Your task to perform on an android device: refresh tabs in the chrome app Image 0: 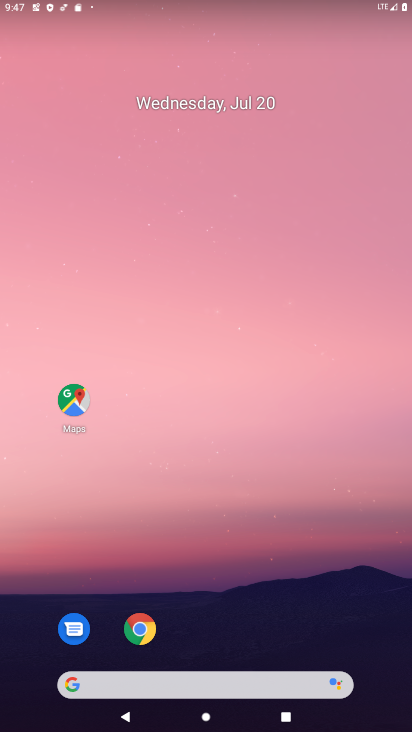
Step 0: press home button
Your task to perform on an android device: refresh tabs in the chrome app Image 1: 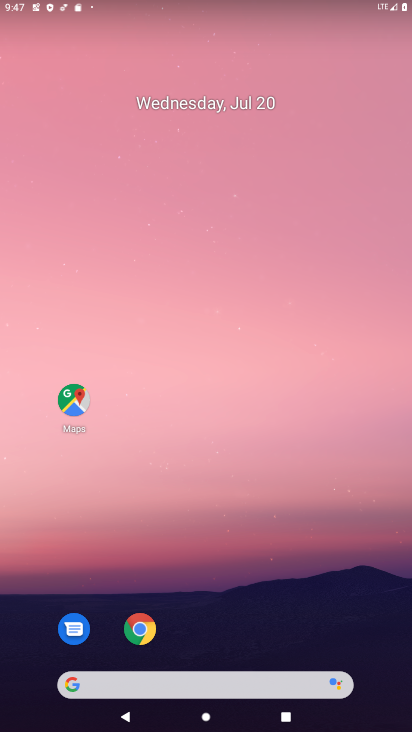
Step 1: drag from (306, 626) to (270, 187)
Your task to perform on an android device: refresh tabs in the chrome app Image 2: 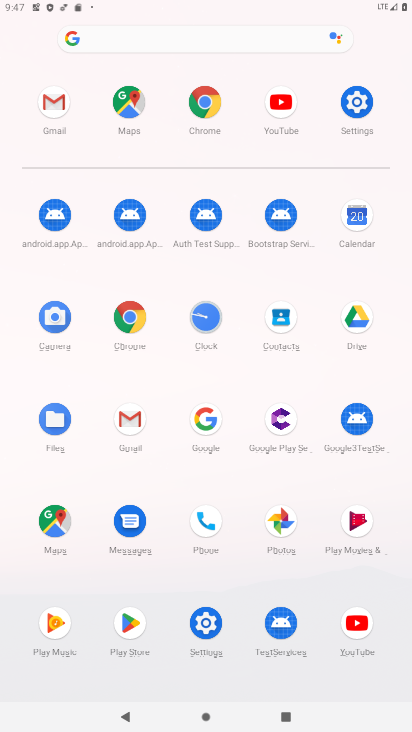
Step 2: click (220, 86)
Your task to perform on an android device: refresh tabs in the chrome app Image 3: 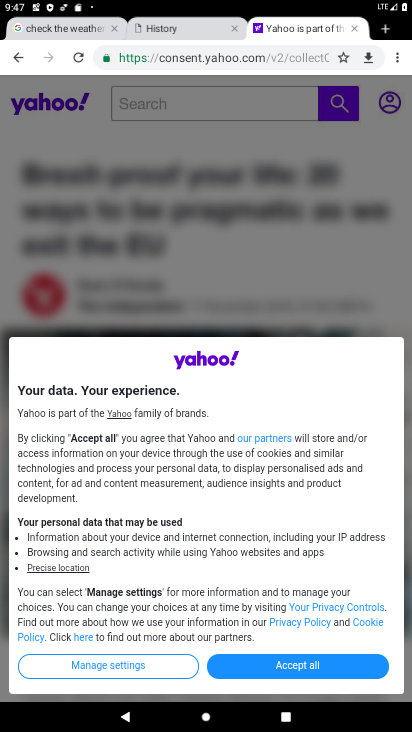
Step 3: click (81, 60)
Your task to perform on an android device: refresh tabs in the chrome app Image 4: 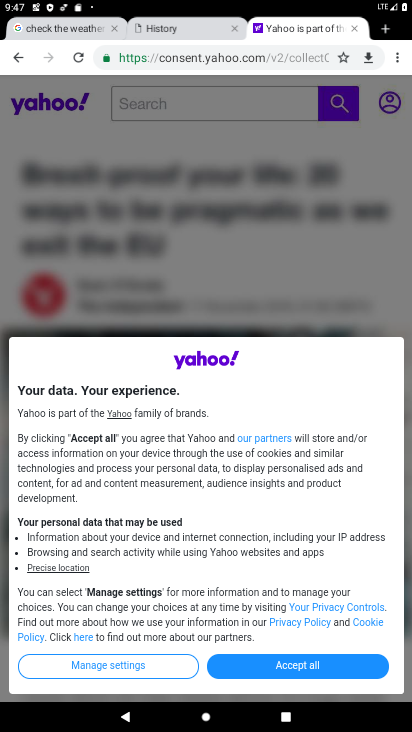
Step 4: task complete